Your task to perform on an android device: Open accessibility settings Image 0: 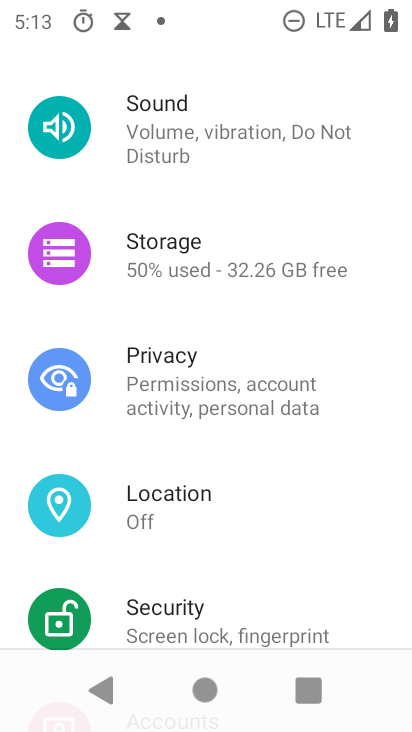
Step 0: drag from (259, 535) to (236, 166)
Your task to perform on an android device: Open accessibility settings Image 1: 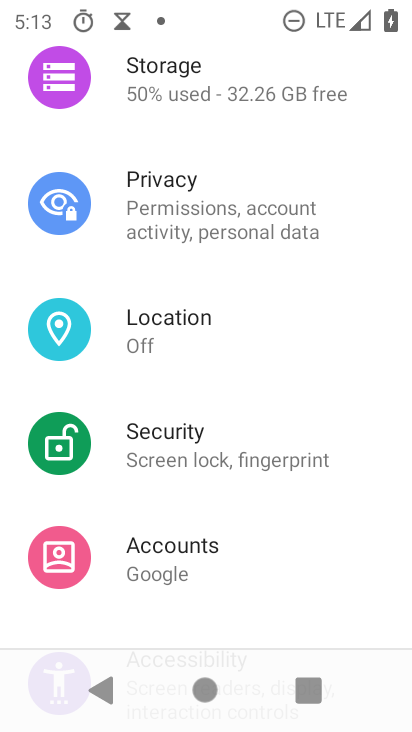
Step 1: drag from (263, 499) to (248, 156)
Your task to perform on an android device: Open accessibility settings Image 2: 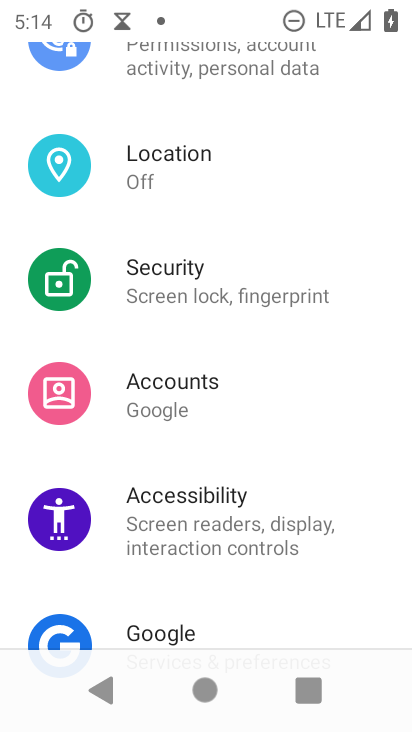
Step 2: click (236, 517)
Your task to perform on an android device: Open accessibility settings Image 3: 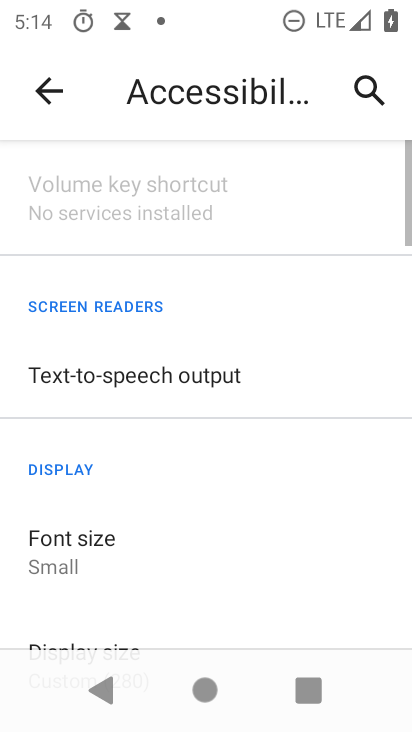
Step 3: task complete